Your task to perform on an android device: Search for dell xps on amazon, select the first entry, and add it to the cart. Image 0: 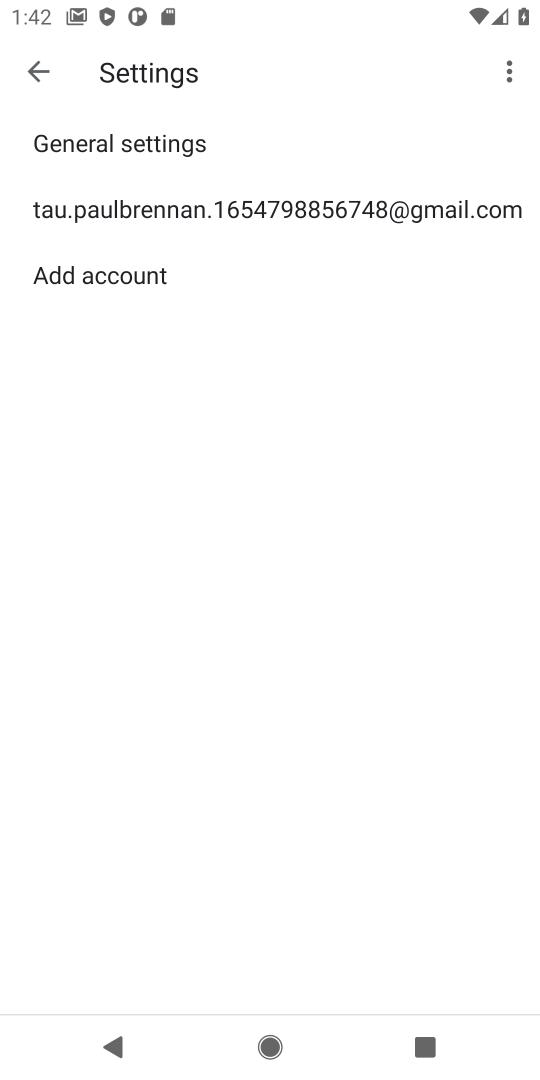
Step 0: press home button
Your task to perform on an android device: Search for dell xps on amazon, select the first entry, and add it to the cart. Image 1: 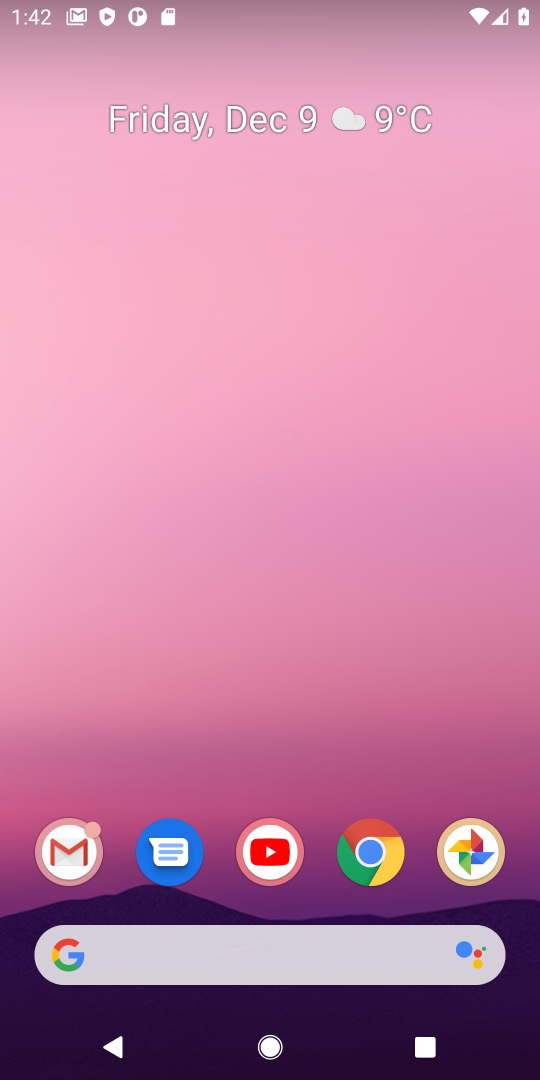
Step 1: click (359, 868)
Your task to perform on an android device: Search for dell xps on amazon, select the first entry, and add it to the cart. Image 2: 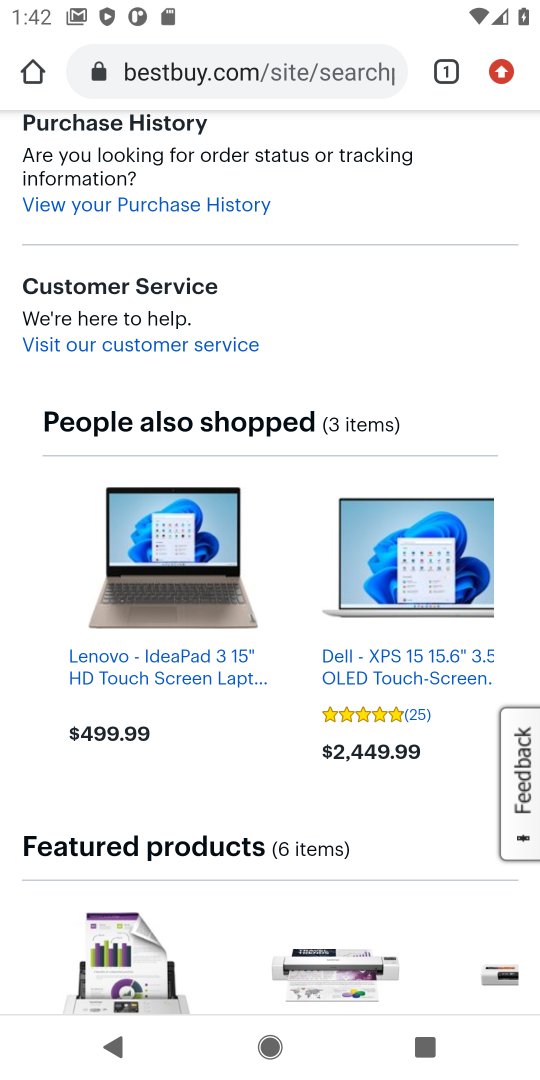
Step 2: click (199, 66)
Your task to perform on an android device: Search for dell xps on amazon, select the first entry, and add it to the cart. Image 3: 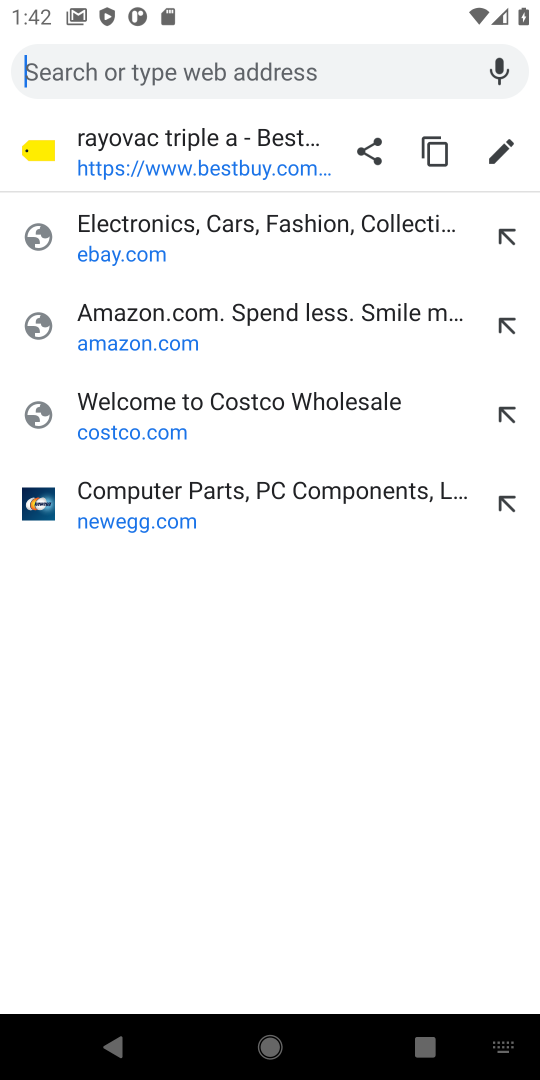
Step 3: click (229, 312)
Your task to perform on an android device: Search for dell xps on amazon, select the first entry, and add it to the cart. Image 4: 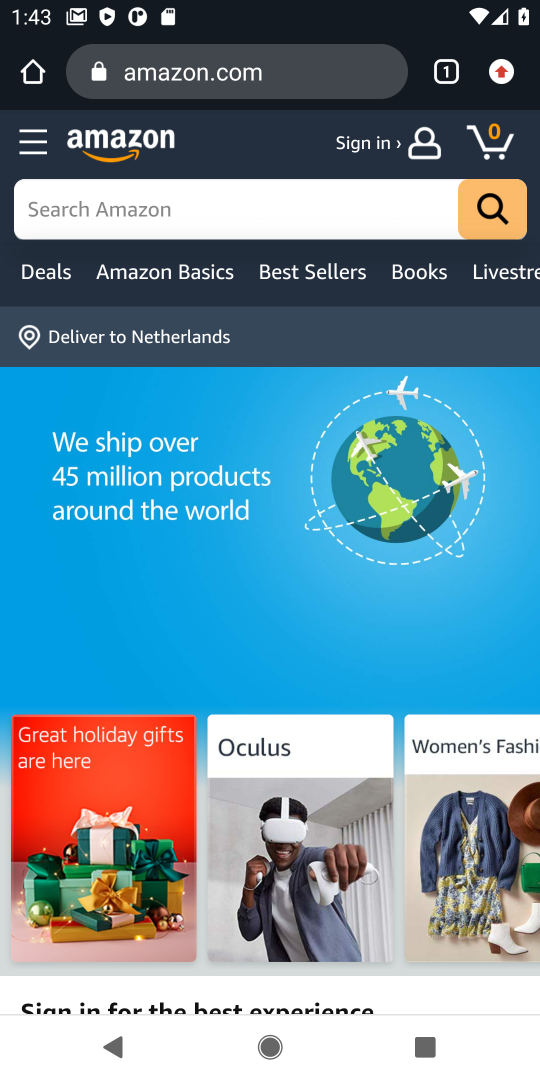
Step 4: click (383, 210)
Your task to perform on an android device: Search for dell xps on amazon, select the first entry, and add it to the cart. Image 5: 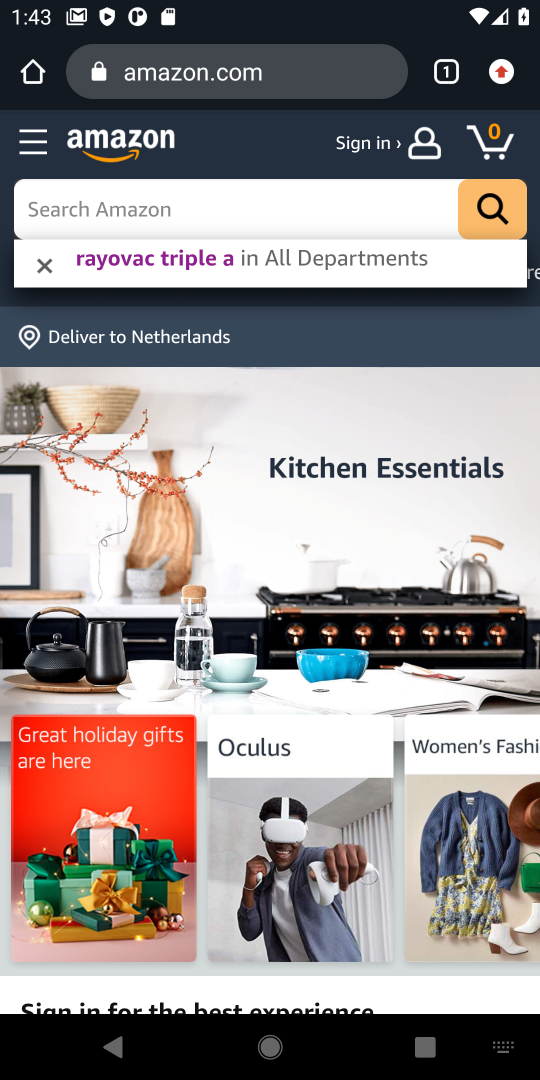
Step 5: type "dell xps "
Your task to perform on an android device: Search for dell xps on amazon, select the first entry, and add it to the cart. Image 6: 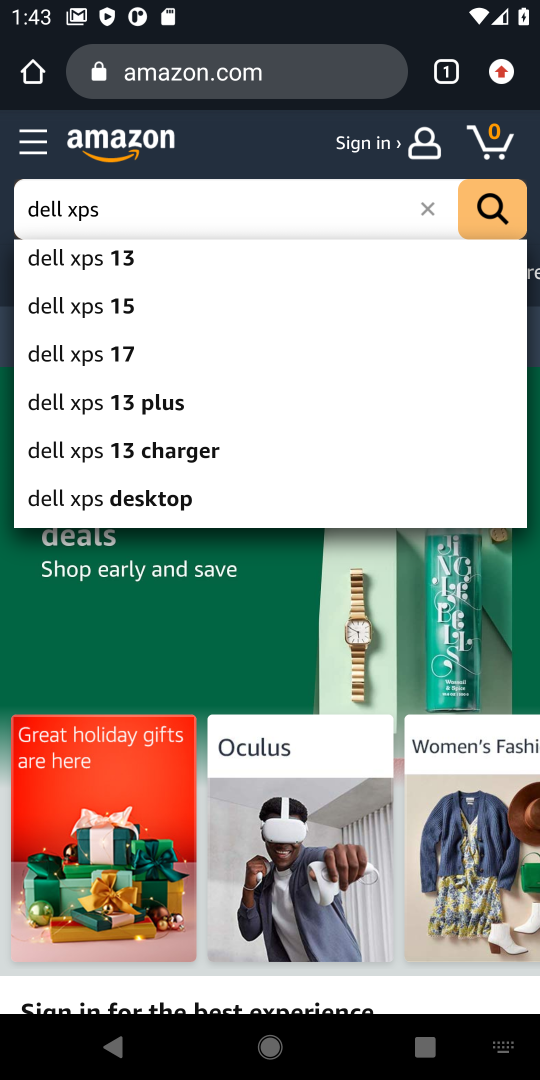
Step 6: click (501, 217)
Your task to perform on an android device: Search for dell xps on amazon, select the first entry, and add it to the cart. Image 7: 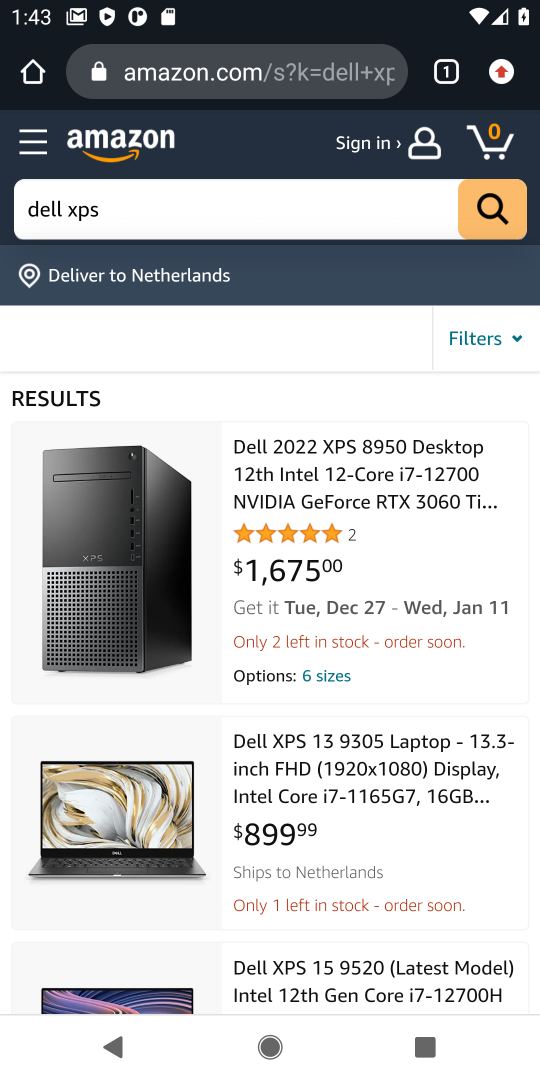
Step 7: click (119, 795)
Your task to perform on an android device: Search for dell xps on amazon, select the first entry, and add it to the cart. Image 8: 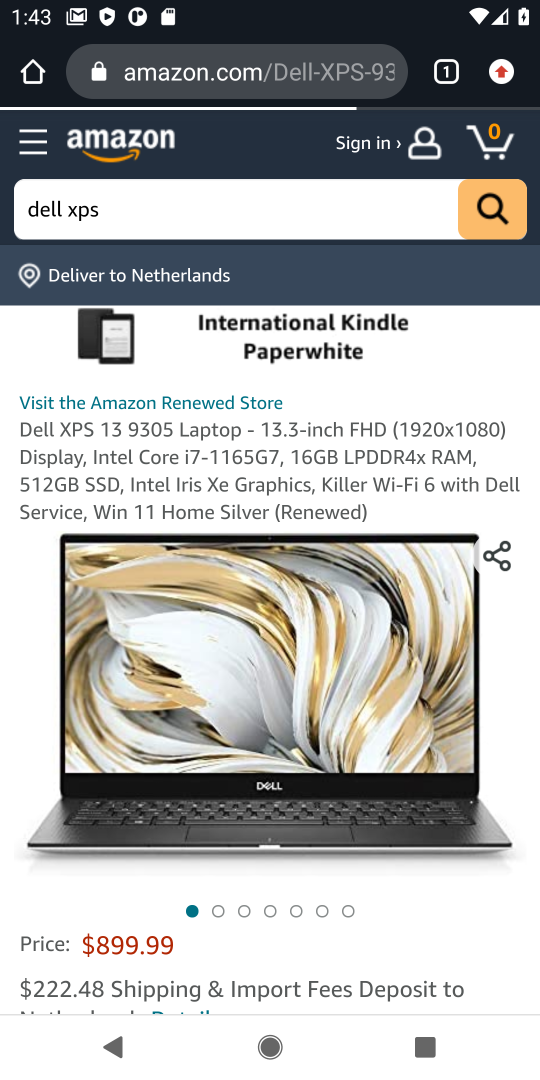
Step 8: press back button
Your task to perform on an android device: Search for dell xps on amazon, select the first entry, and add it to the cart. Image 9: 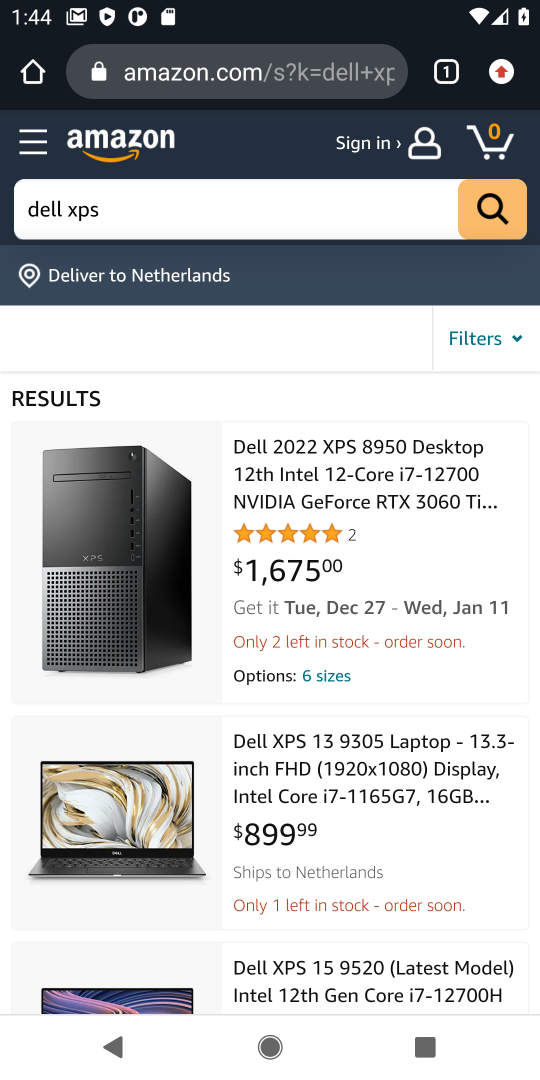
Step 9: click (126, 481)
Your task to perform on an android device: Search for dell xps on amazon, select the first entry, and add it to the cart. Image 10: 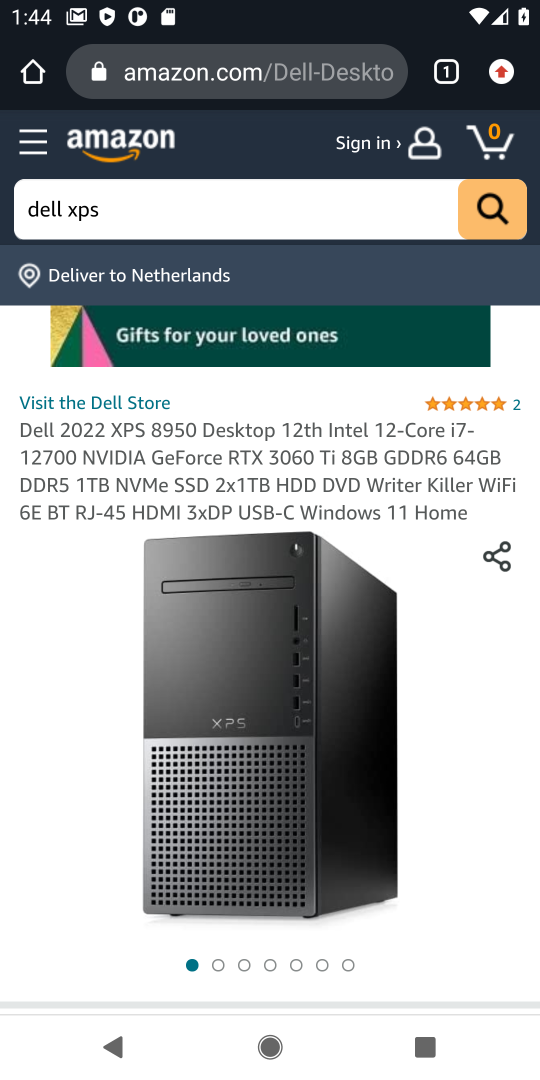
Step 10: click (439, 851)
Your task to perform on an android device: Search for dell xps on amazon, select the first entry, and add it to the cart. Image 11: 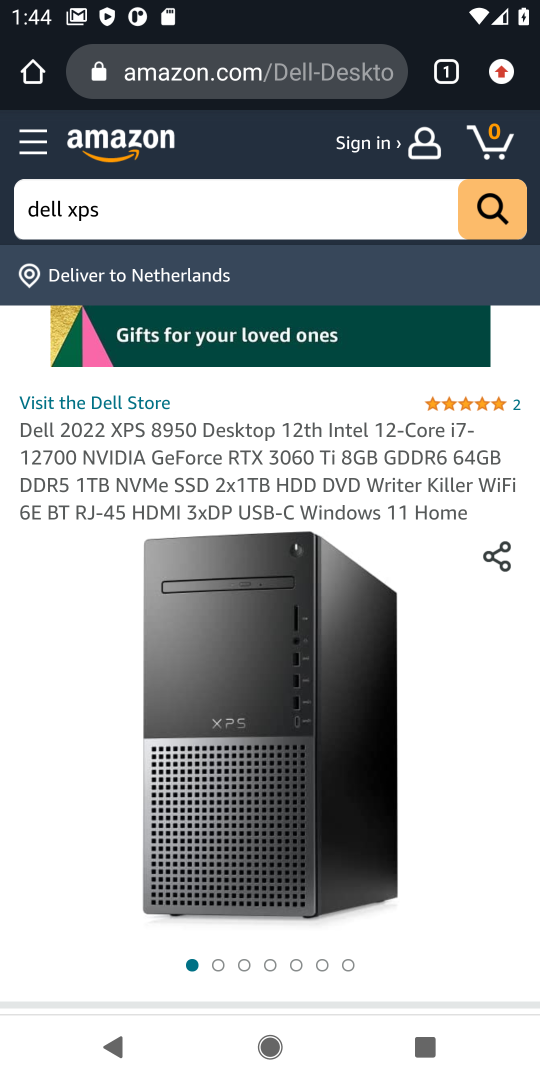
Step 11: drag from (372, 881) to (397, 353)
Your task to perform on an android device: Search for dell xps on amazon, select the first entry, and add it to the cart. Image 12: 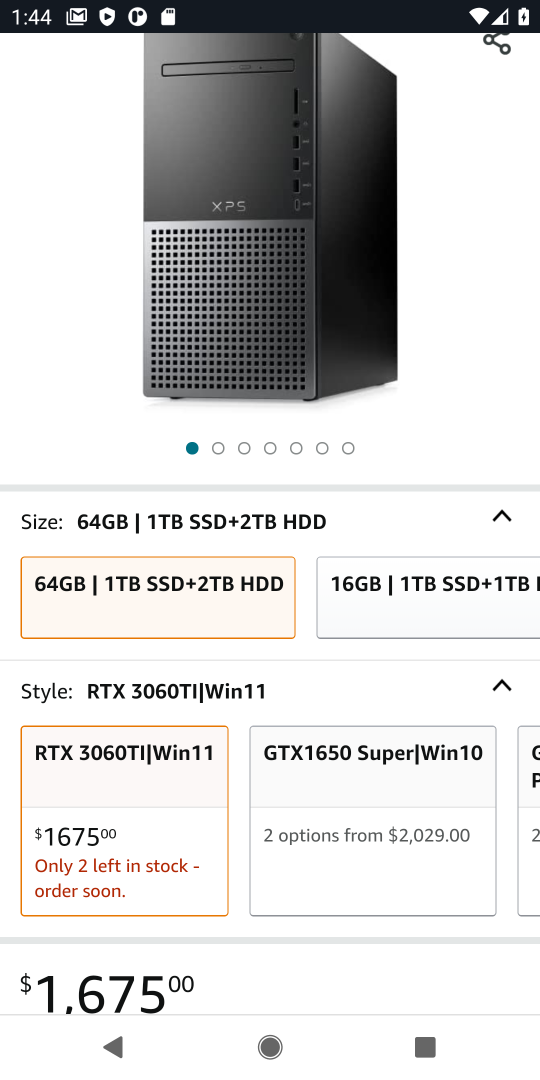
Step 12: drag from (269, 683) to (338, 359)
Your task to perform on an android device: Search for dell xps on amazon, select the first entry, and add it to the cart. Image 13: 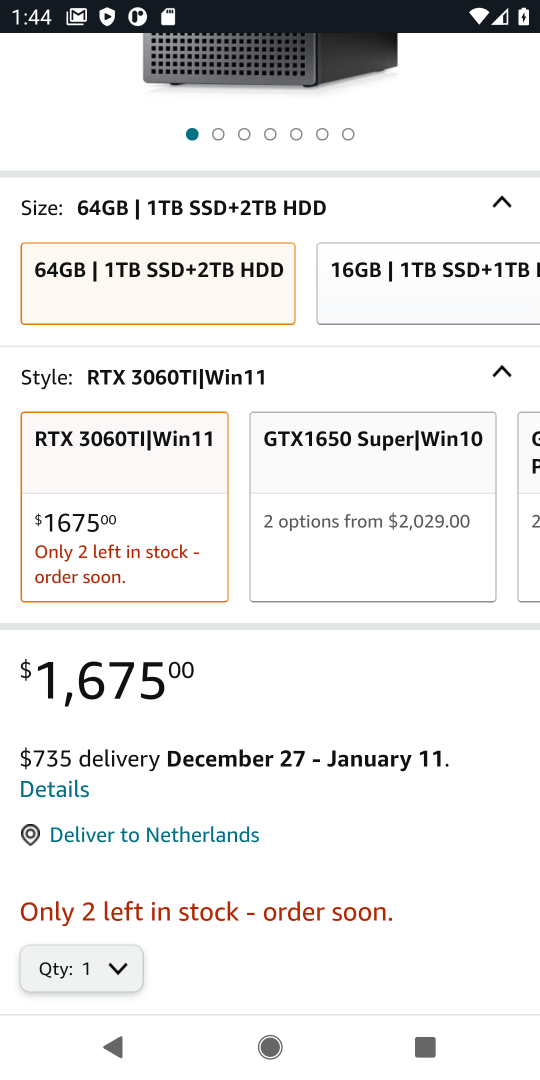
Step 13: drag from (350, 826) to (429, 586)
Your task to perform on an android device: Search for dell xps on amazon, select the first entry, and add it to the cart. Image 14: 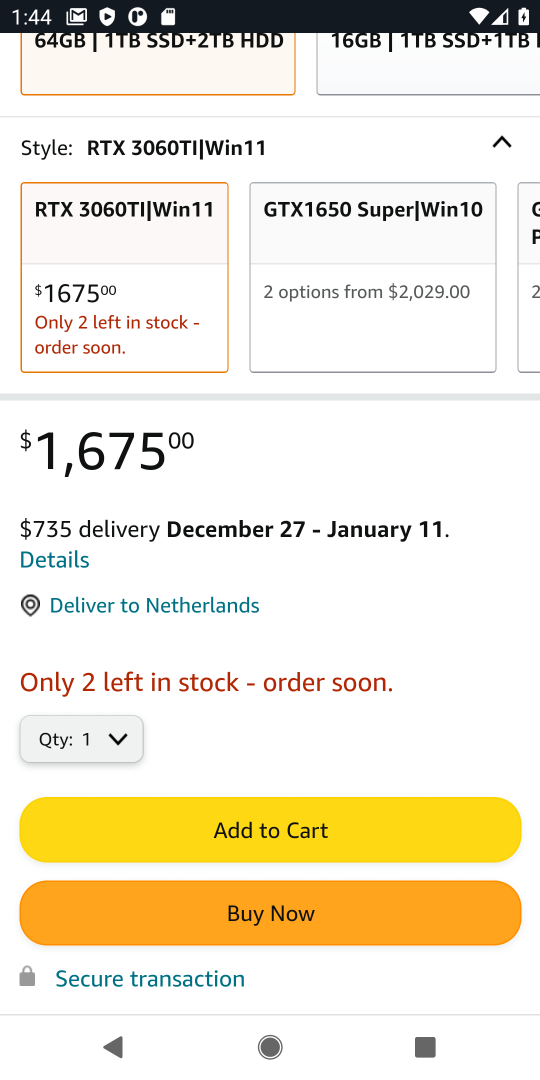
Step 14: click (288, 820)
Your task to perform on an android device: Search for dell xps on amazon, select the first entry, and add it to the cart. Image 15: 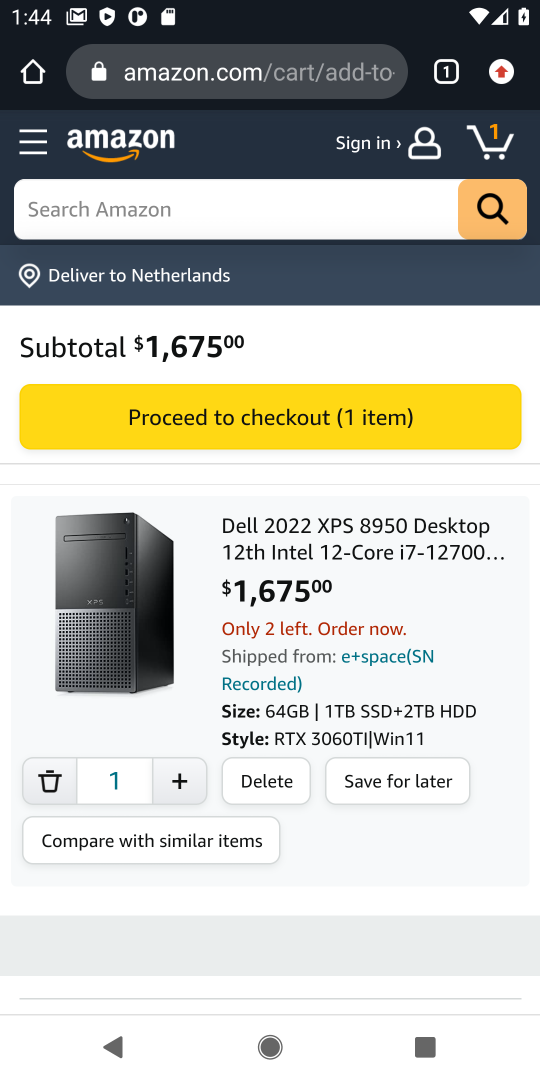
Step 15: task complete